Your task to perform on an android device: turn vacation reply on in the gmail app Image 0: 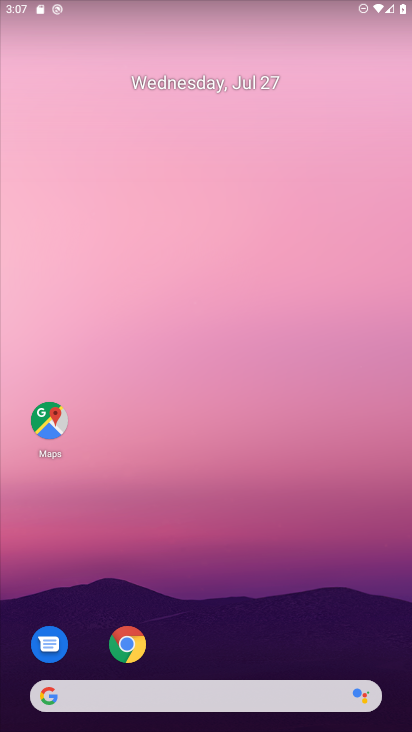
Step 0: drag from (235, 636) to (221, 29)
Your task to perform on an android device: turn vacation reply on in the gmail app Image 1: 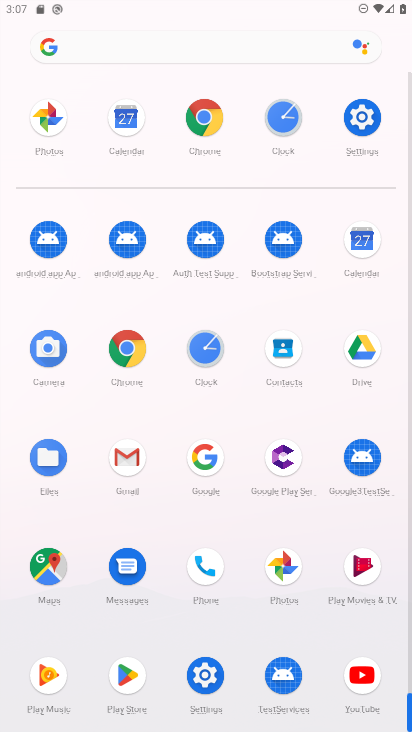
Step 1: click (134, 462)
Your task to perform on an android device: turn vacation reply on in the gmail app Image 2: 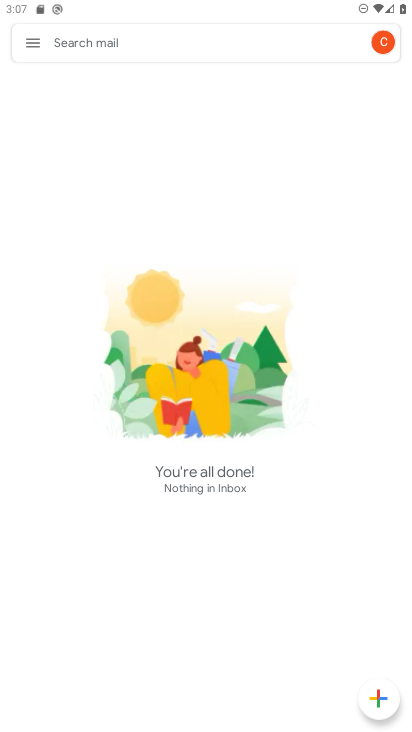
Step 2: click (33, 41)
Your task to perform on an android device: turn vacation reply on in the gmail app Image 3: 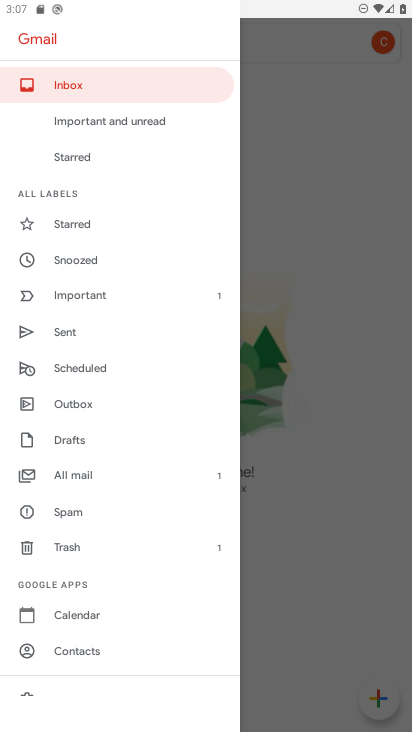
Step 3: drag from (84, 639) to (122, 392)
Your task to perform on an android device: turn vacation reply on in the gmail app Image 4: 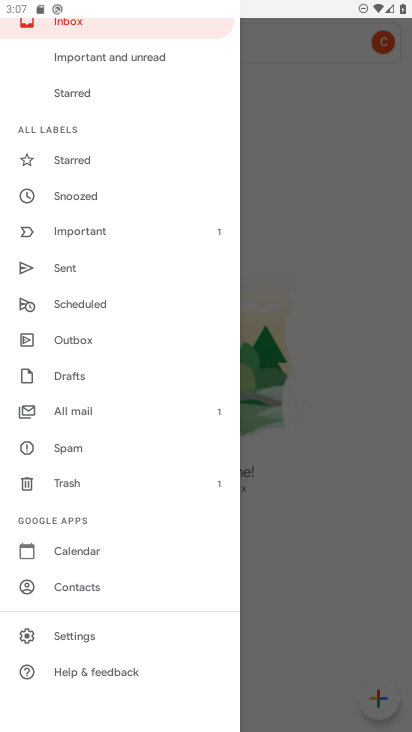
Step 4: click (72, 632)
Your task to perform on an android device: turn vacation reply on in the gmail app Image 5: 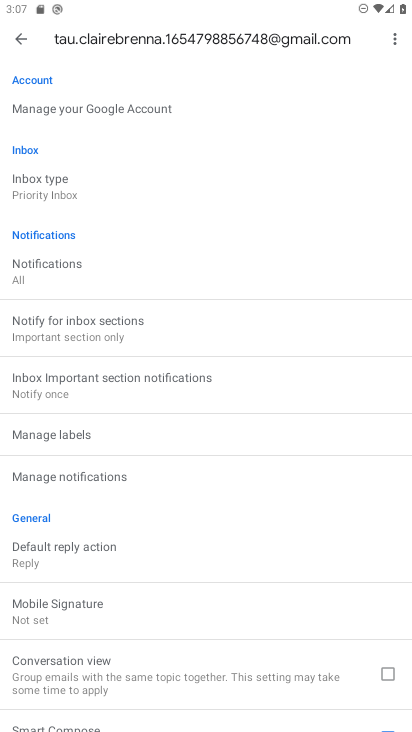
Step 5: drag from (124, 602) to (136, 316)
Your task to perform on an android device: turn vacation reply on in the gmail app Image 6: 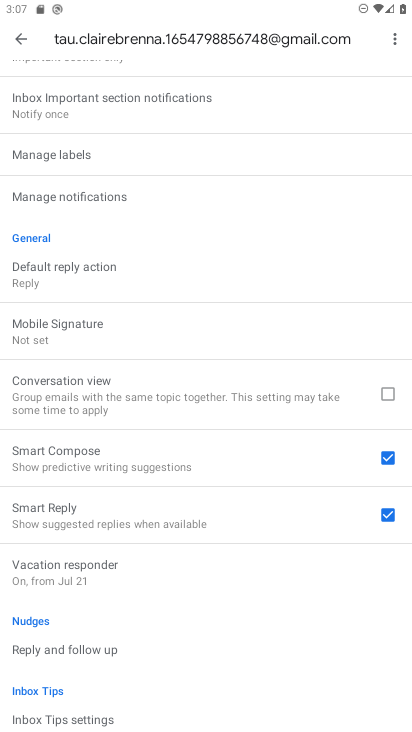
Step 6: click (65, 575)
Your task to perform on an android device: turn vacation reply on in the gmail app Image 7: 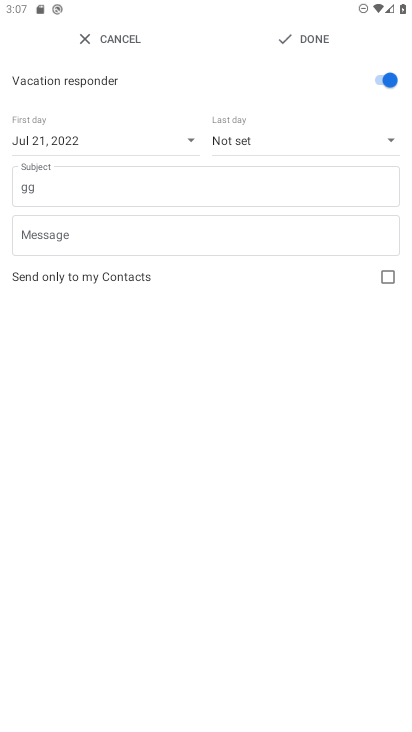
Step 7: task complete